Your task to perform on an android device: change the clock display to analog Image 0: 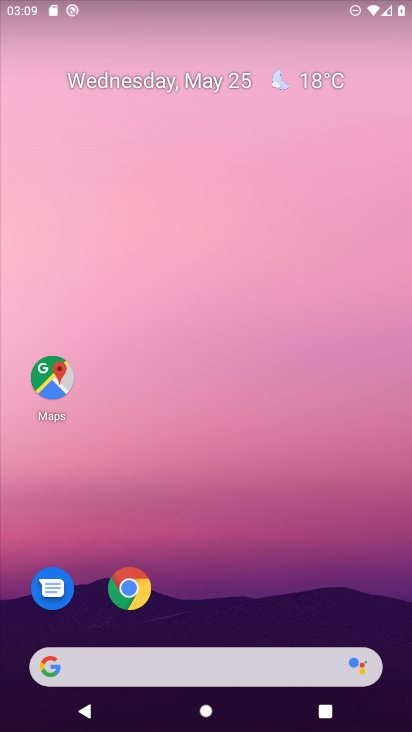
Step 0: press home button
Your task to perform on an android device: change the clock display to analog Image 1: 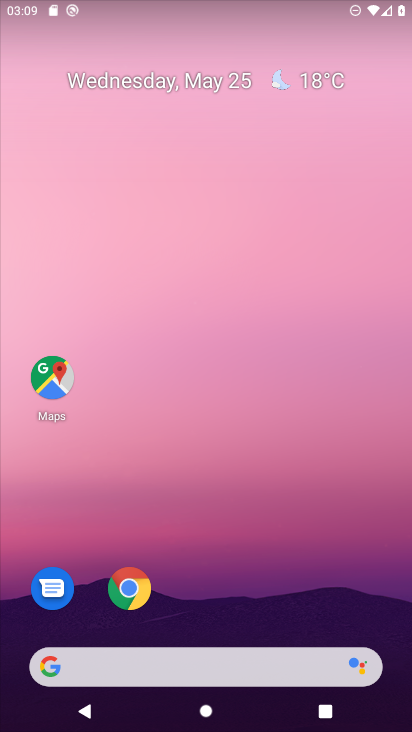
Step 1: drag from (224, 611) to (288, 54)
Your task to perform on an android device: change the clock display to analog Image 2: 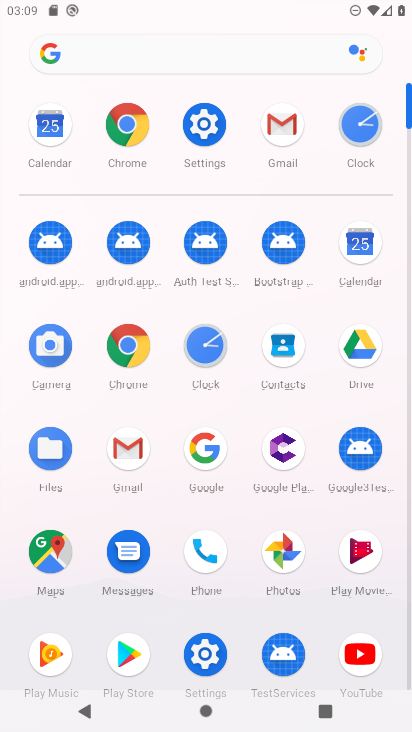
Step 2: click (346, 121)
Your task to perform on an android device: change the clock display to analog Image 3: 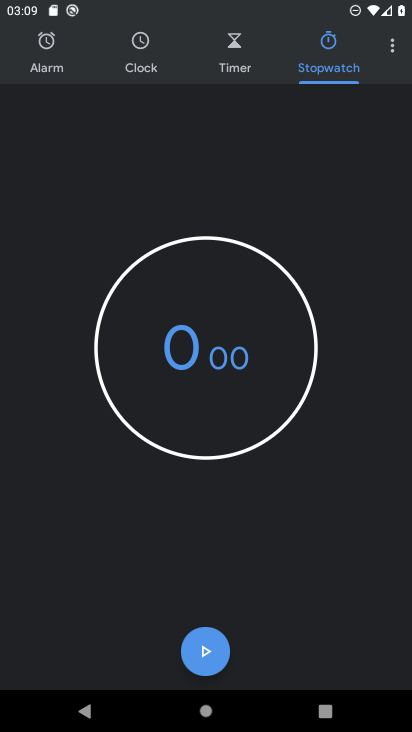
Step 3: click (405, 38)
Your task to perform on an android device: change the clock display to analog Image 4: 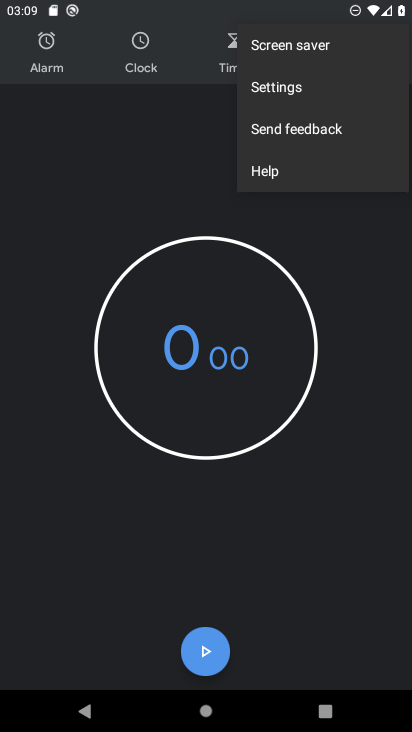
Step 4: click (288, 75)
Your task to perform on an android device: change the clock display to analog Image 5: 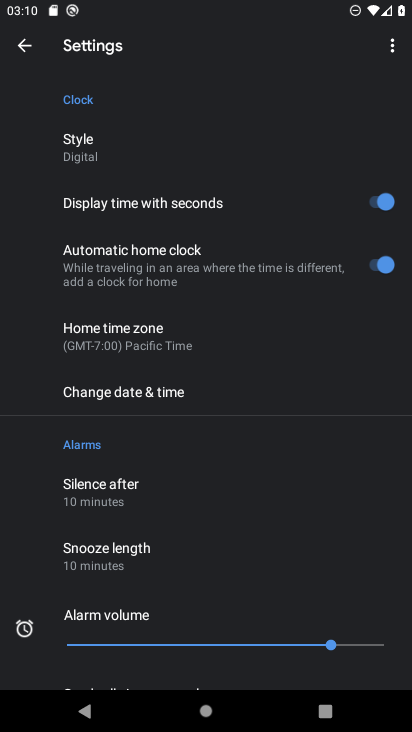
Step 5: click (124, 147)
Your task to perform on an android device: change the clock display to analog Image 6: 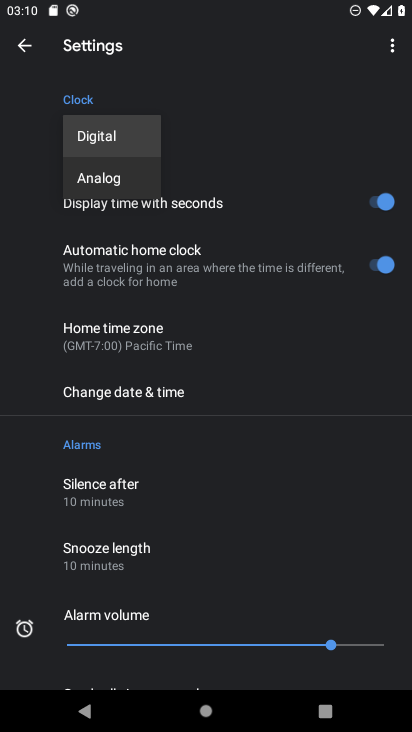
Step 6: click (122, 173)
Your task to perform on an android device: change the clock display to analog Image 7: 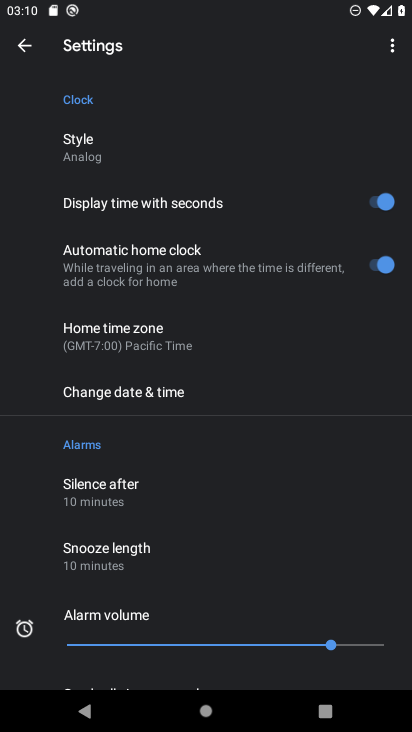
Step 7: task complete